Your task to perform on an android device: Check the news Image 0: 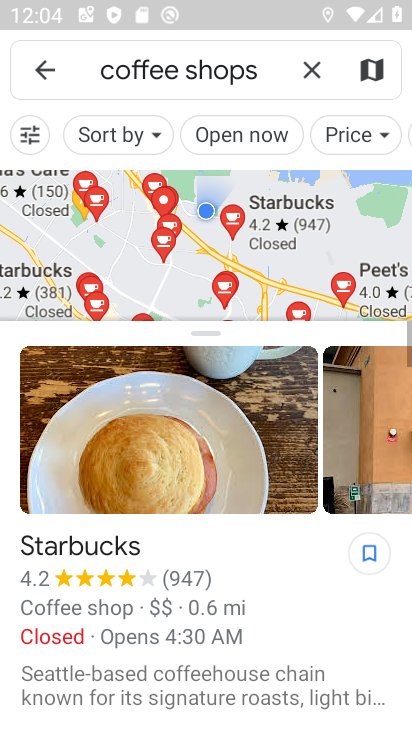
Step 0: press back button
Your task to perform on an android device: Check the news Image 1: 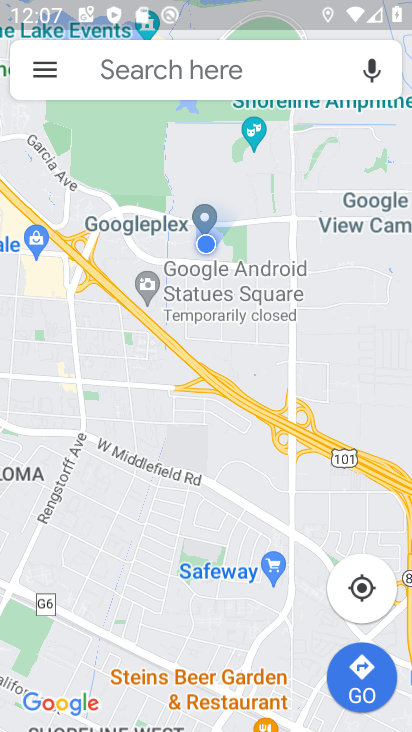
Step 1: press back button
Your task to perform on an android device: Check the news Image 2: 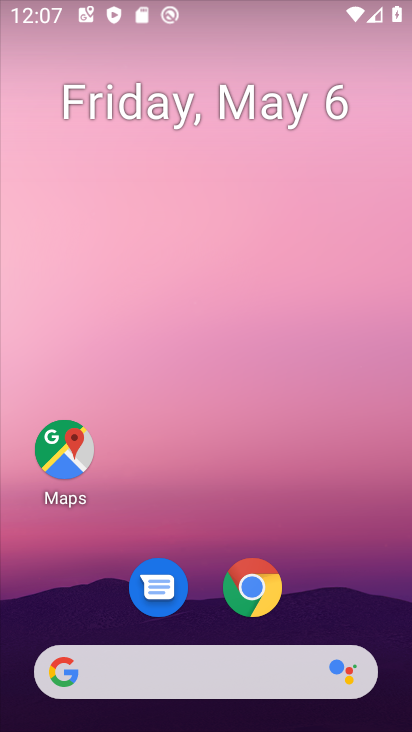
Step 2: click (145, 642)
Your task to perform on an android device: Check the news Image 3: 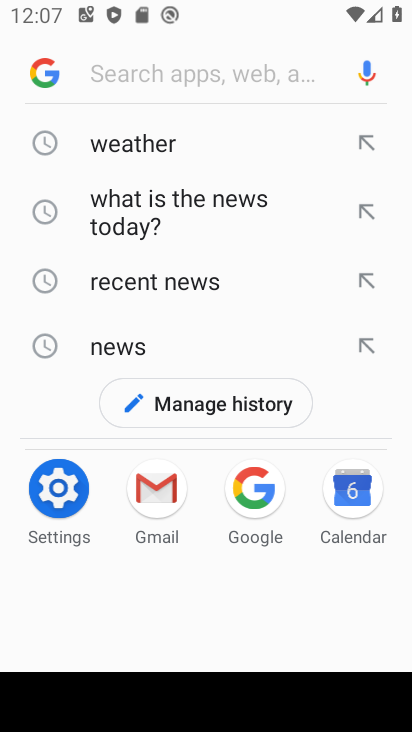
Step 3: click (121, 348)
Your task to perform on an android device: Check the news Image 4: 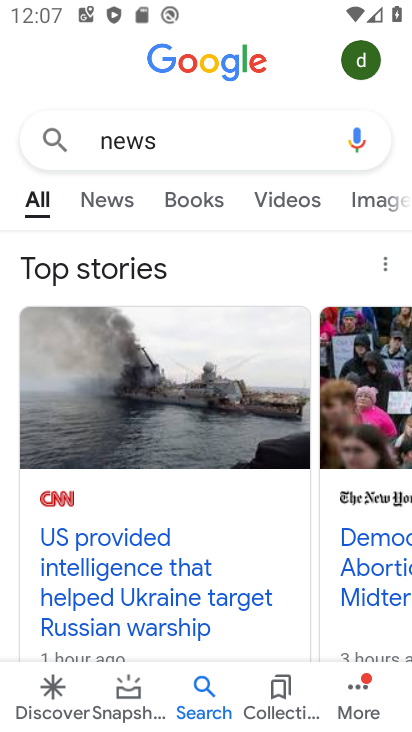
Step 4: task complete